Your task to perform on an android device: check data usage Image 0: 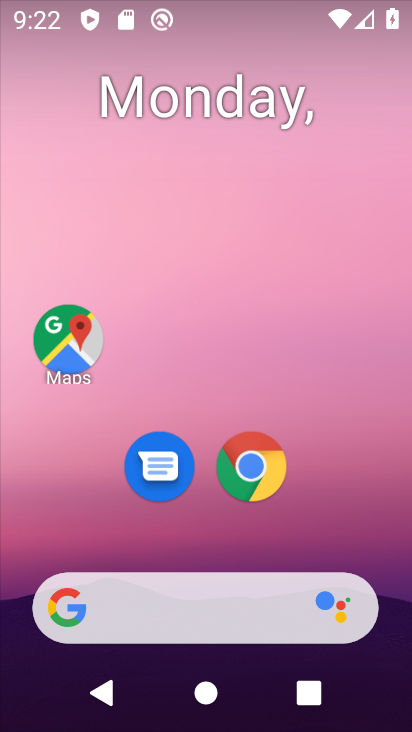
Step 0: drag from (81, 564) to (227, 112)
Your task to perform on an android device: check data usage Image 1: 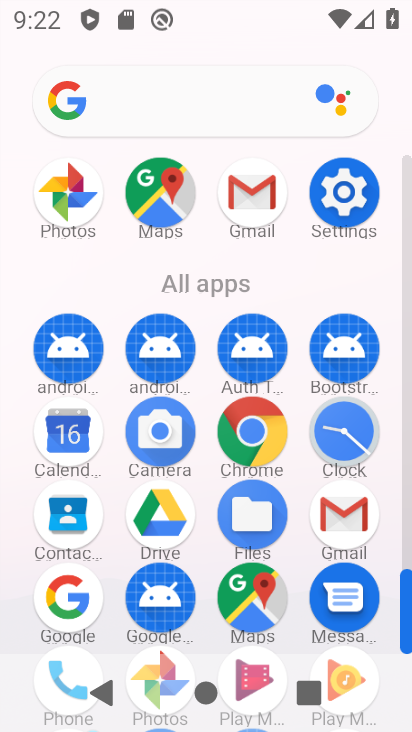
Step 1: drag from (185, 668) to (277, 332)
Your task to perform on an android device: check data usage Image 2: 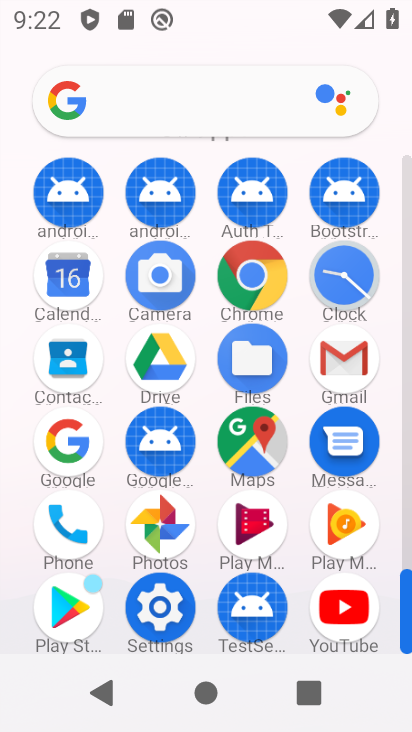
Step 2: click (156, 609)
Your task to perform on an android device: check data usage Image 3: 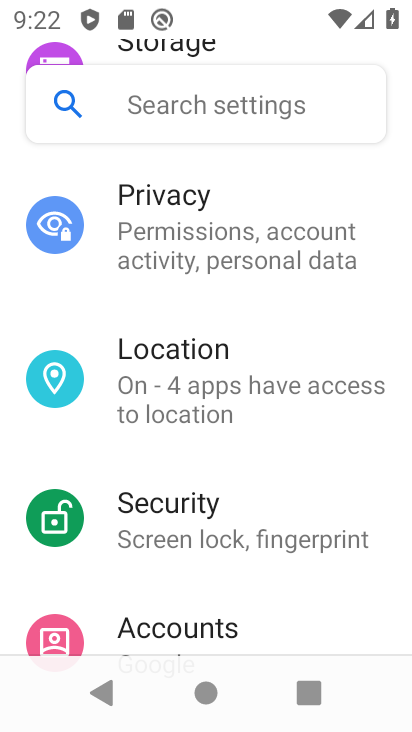
Step 3: drag from (315, 229) to (258, 597)
Your task to perform on an android device: check data usage Image 4: 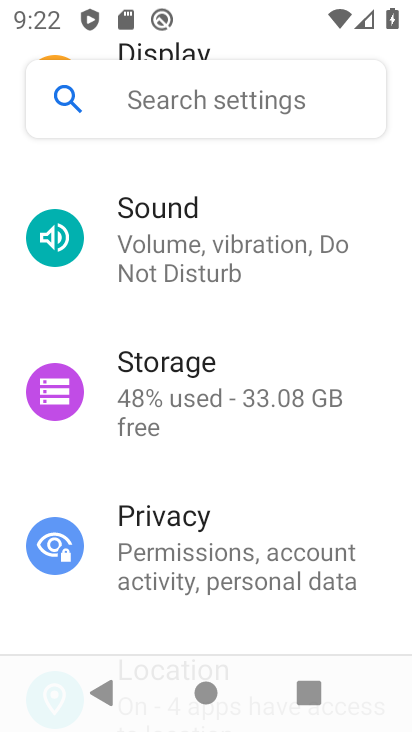
Step 4: drag from (303, 233) to (282, 671)
Your task to perform on an android device: check data usage Image 5: 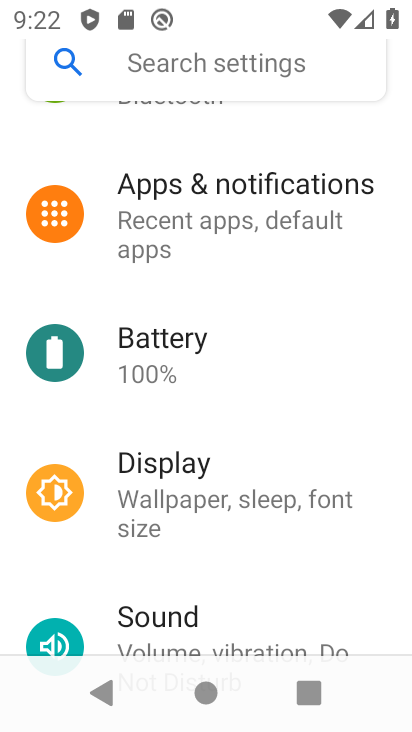
Step 5: drag from (272, 299) to (263, 614)
Your task to perform on an android device: check data usage Image 6: 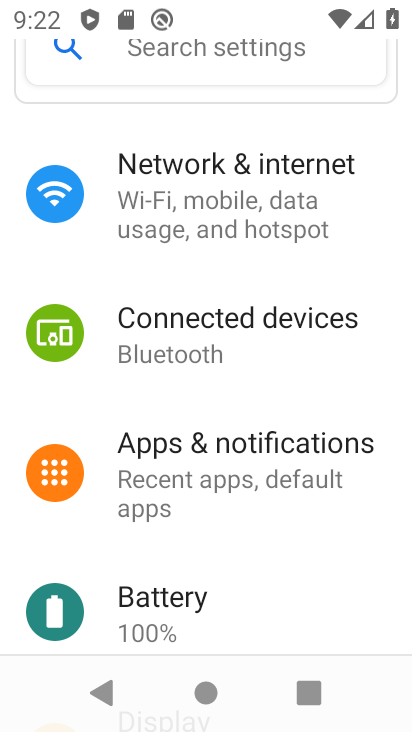
Step 6: drag from (260, 270) to (232, 580)
Your task to perform on an android device: check data usage Image 7: 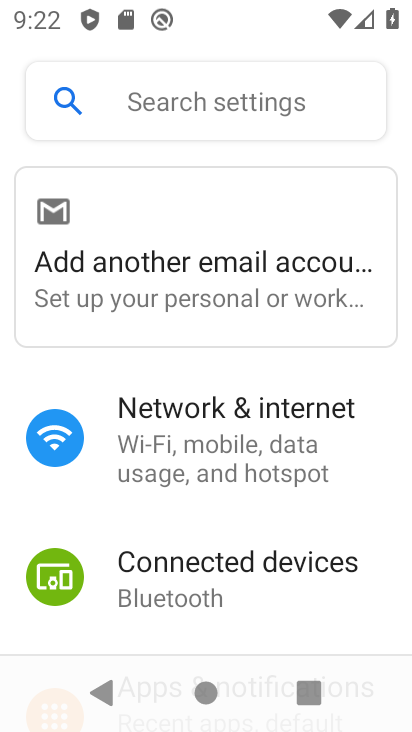
Step 7: click (245, 446)
Your task to perform on an android device: check data usage Image 8: 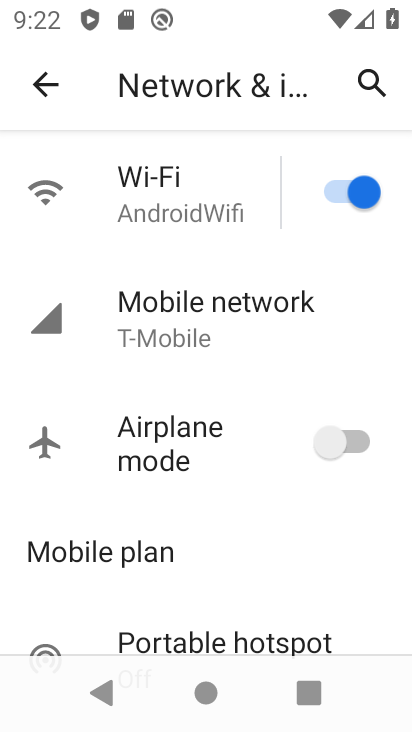
Step 8: click (265, 337)
Your task to perform on an android device: check data usage Image 9: 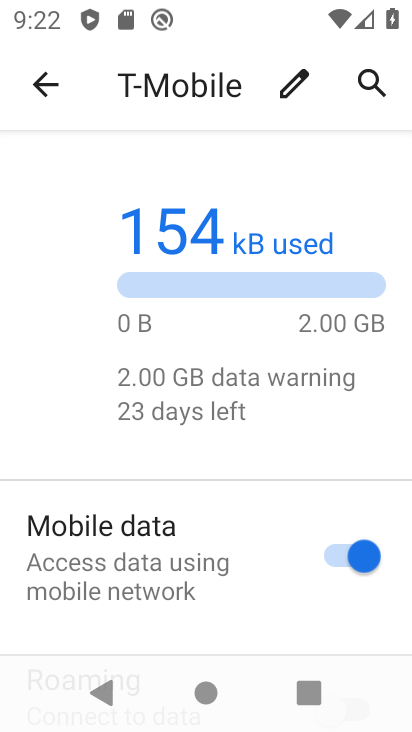
Step 9: drag from (216, 593) to (357, 196)
Your task to perform on an android device: check data usage Image 10: 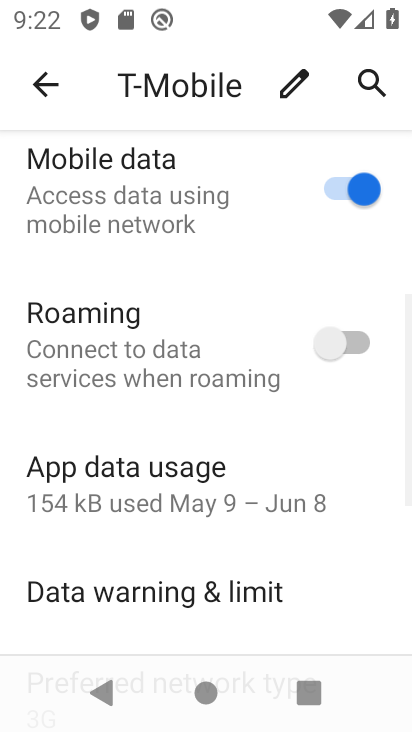
Step 10: click (178, 499)
Your task to perform on an android device: check data usage Image 11: 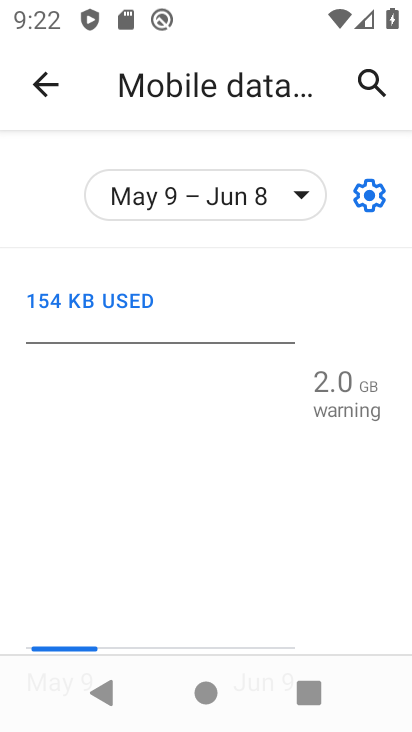
Step 11: task complete